Your task to perform on an android device: turn on priority inbox in the gmail app Image 0: 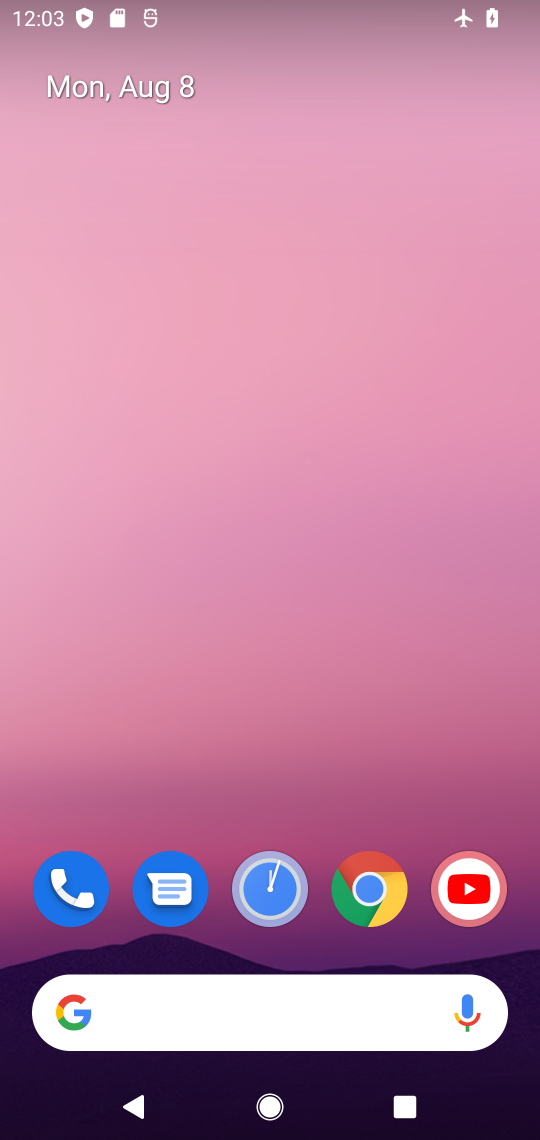
Step 0: drag from (278, 826) to (247, 327)
Your task to perform on an android device: turn on priority inbox in the gmail app Image 1: 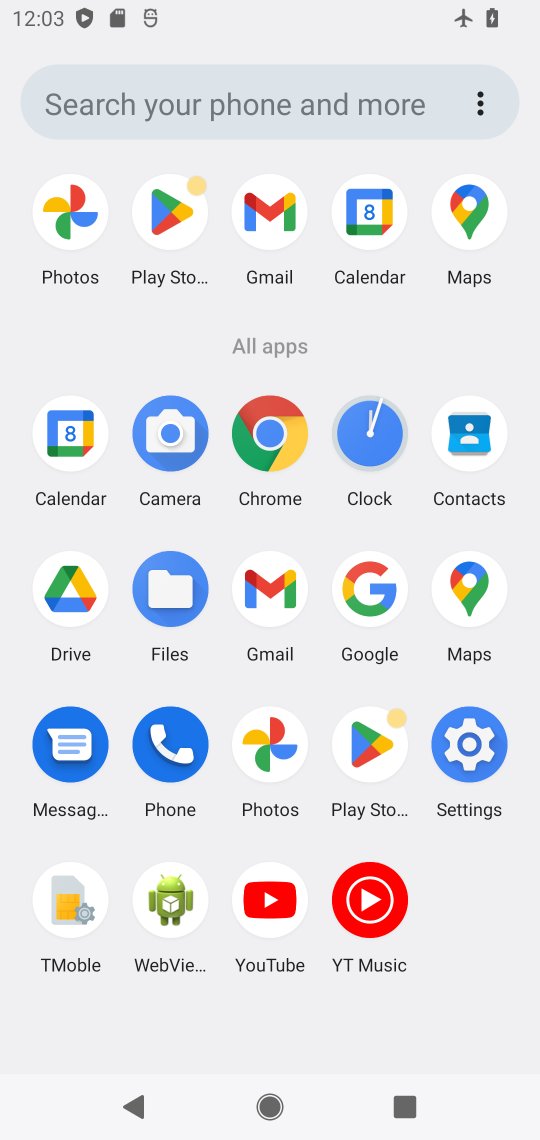
Step 1: click (288, 603)
Your task to perform on an android device: turn on priority inbox in the gmail app Image 2: 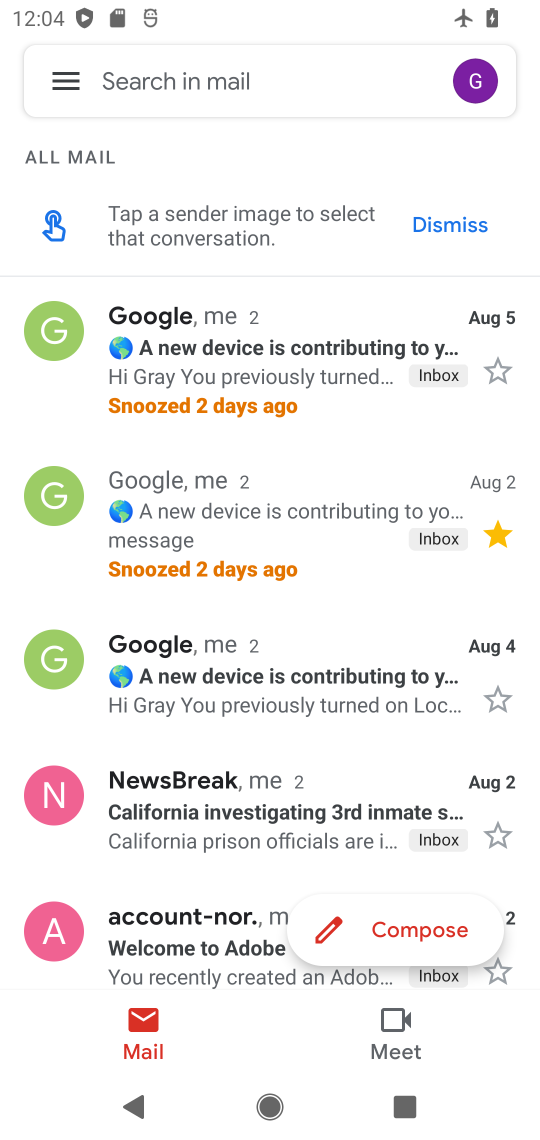
Step 2: click (86, 93)
Your task to perform on an android device: turn on priority inbox in the gmail app Image 3: 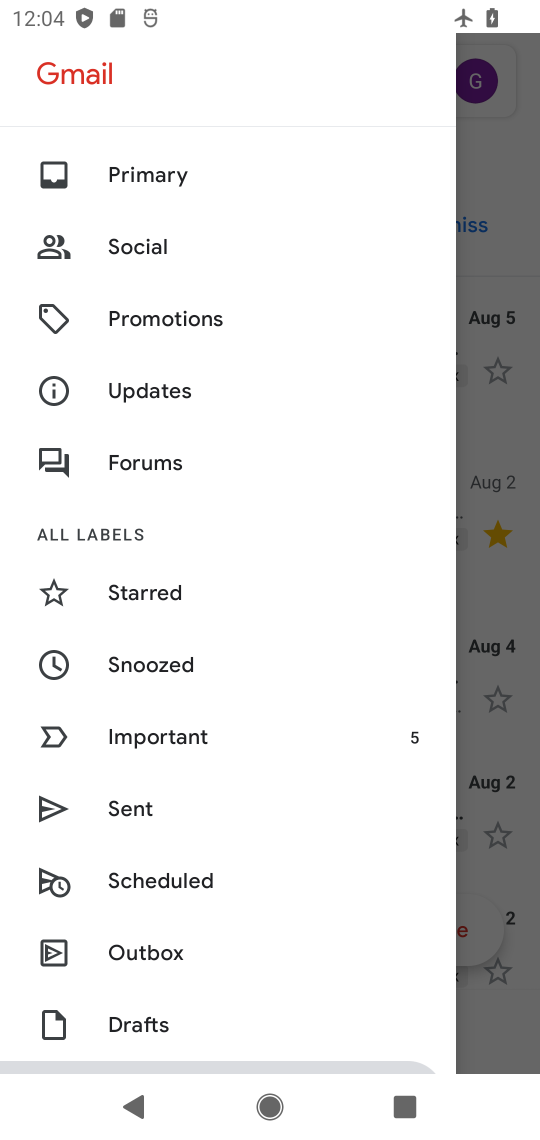
Step 3: drag from (245, 910) to (179, 423)
Your task to perform on an android device: turn on priority inbox in the gmail app Image 4: 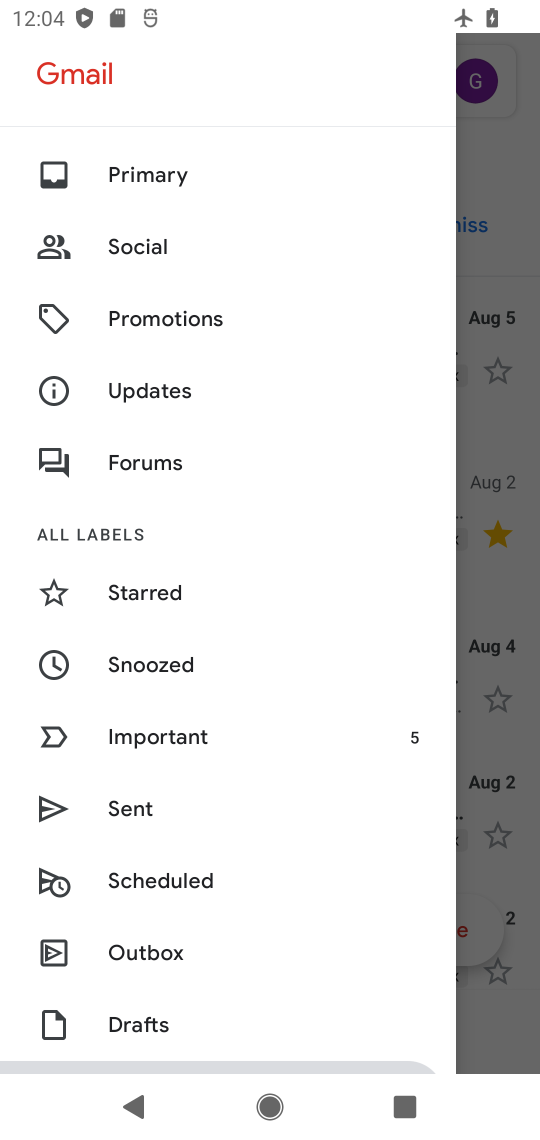
Step 4: drag from (253, 1003) to (237, 572)
Your task to perform on an android device: turn on priority inbox in the gmail app Image 5: 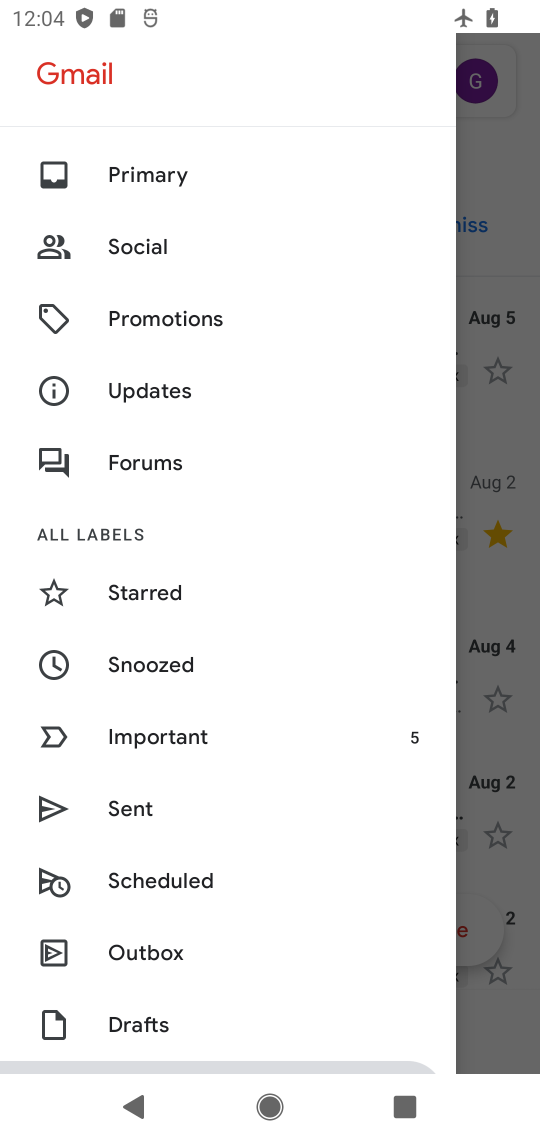
Step 5: drag from (276, 941) to (229, 287)
Your task to perform on an android device: turn on priority inbox in the gmail app Image 6: 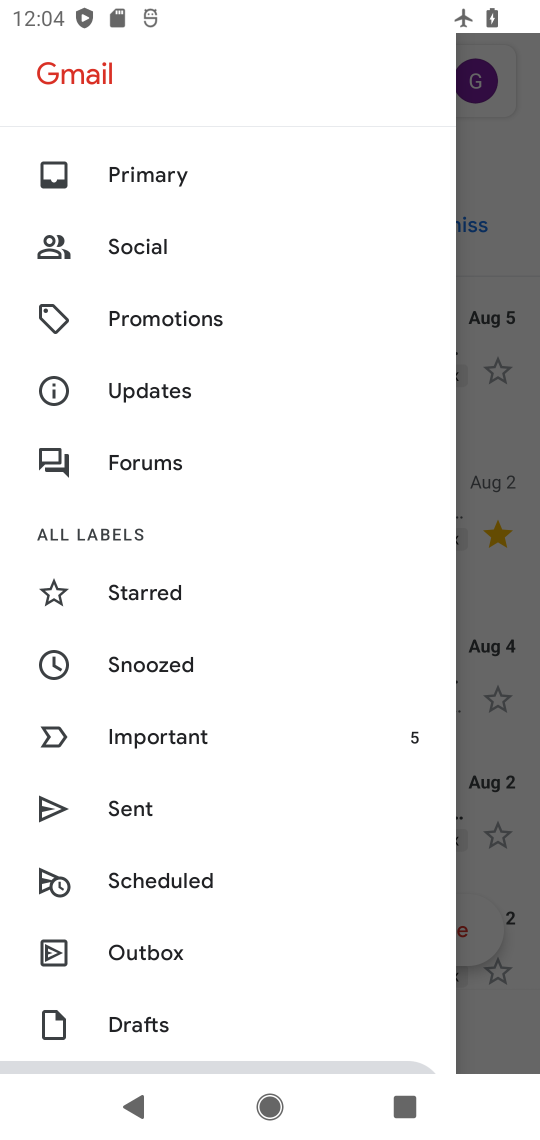
Step 6: drag from (238, 876) to (383, 339)
Your task to perform on an android device: turn on priority inbox in the gmail app Image 7: 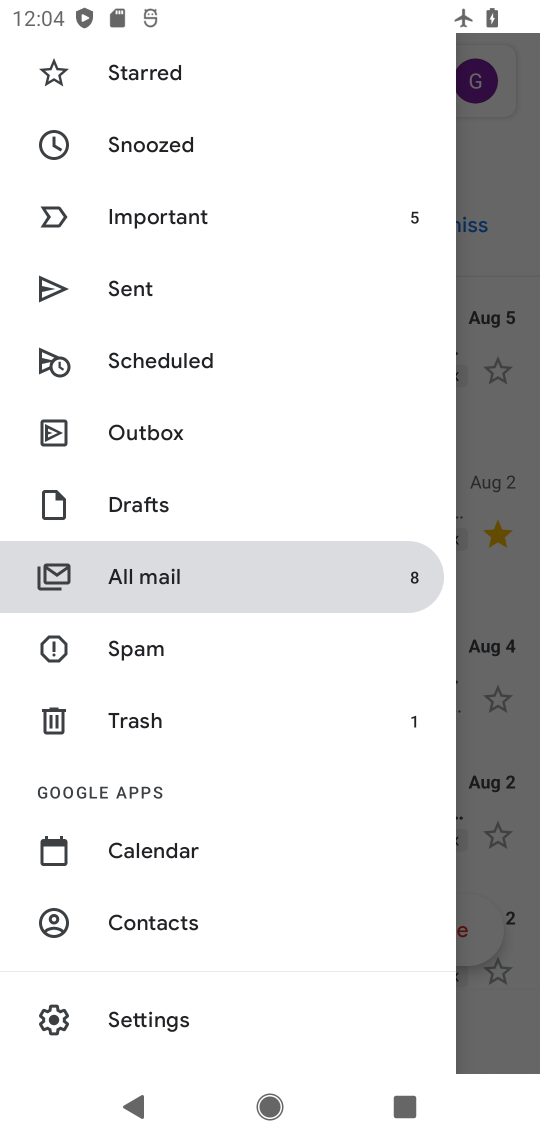
Step 7: click (170, 1011)
Your task to perform on an android device: turn on priority inbox in the gmail app Image 8: 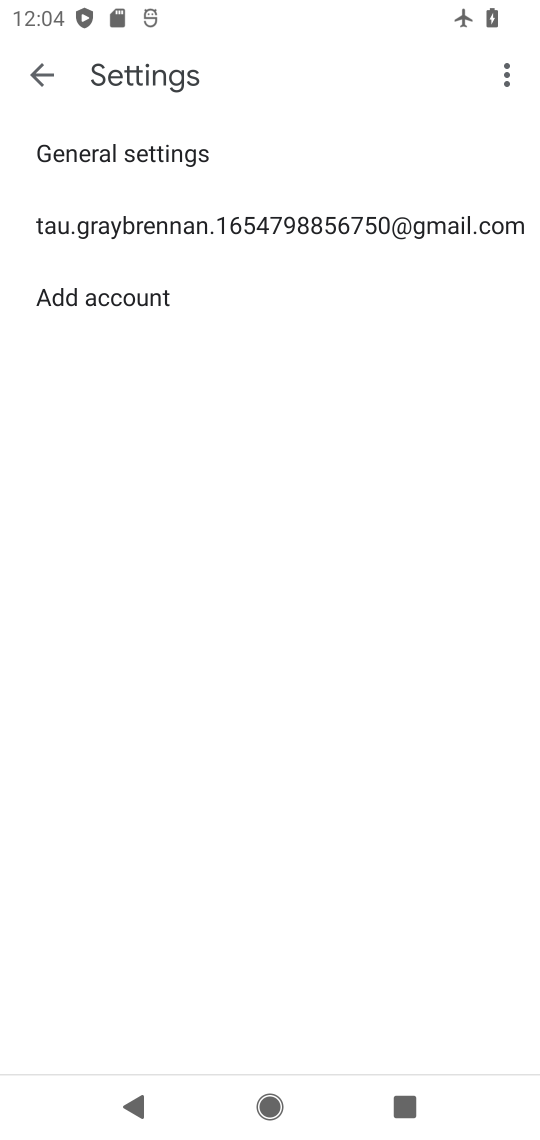
Step 8: click (367, 226)
Your task to perform on an android device: turn on priority inbox in the gmail app Image 9: 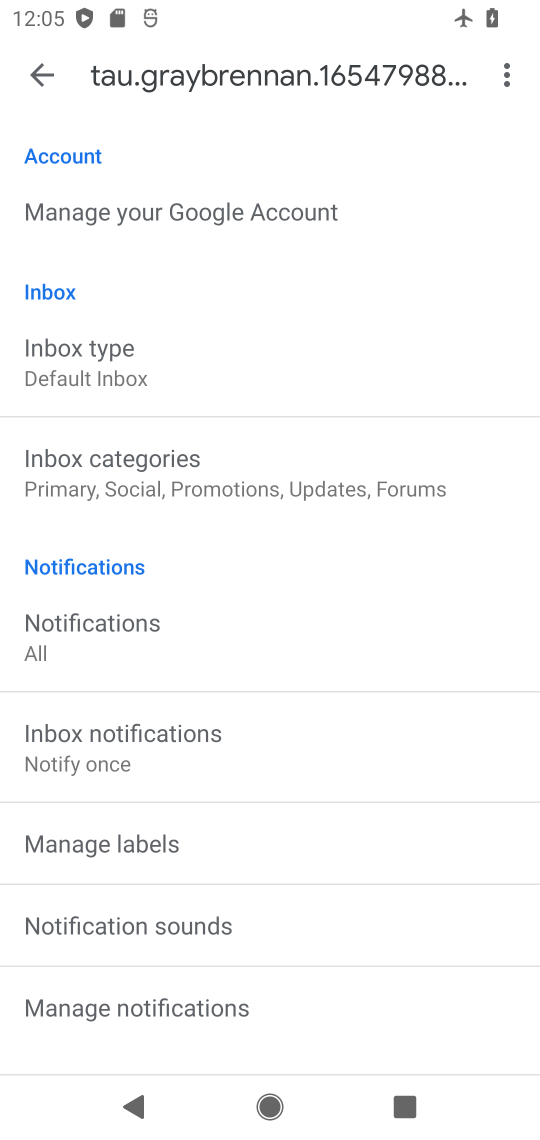
Step 9: click (148, 375)
Your task to perform on an android device: turn on priority inbox in the gmail app Image 10: 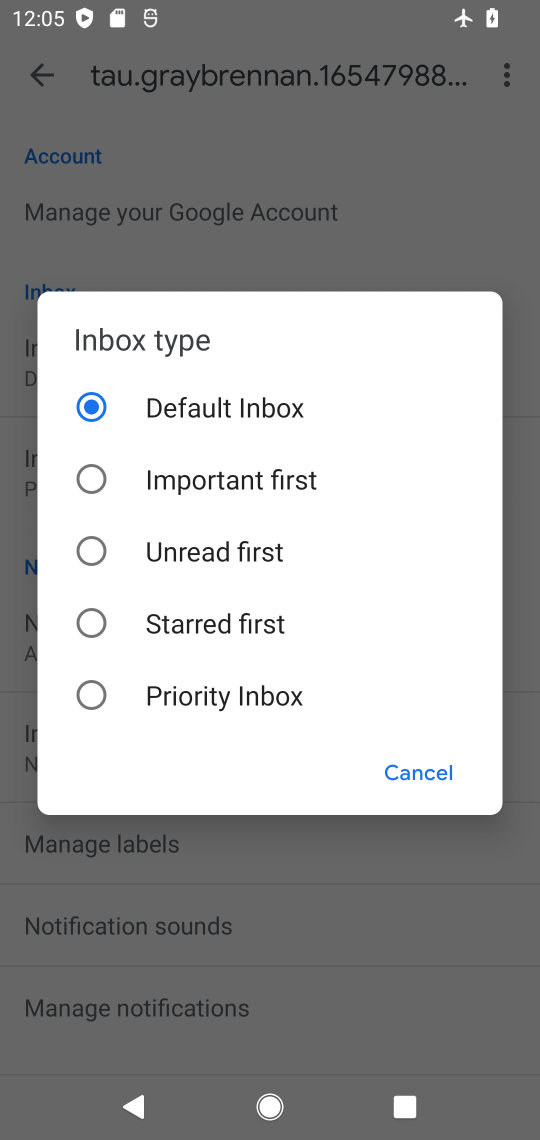
Step 10: click (103, 691)
Your task to perform on an android device: turn on priority inbox in the gmail app Image 11: 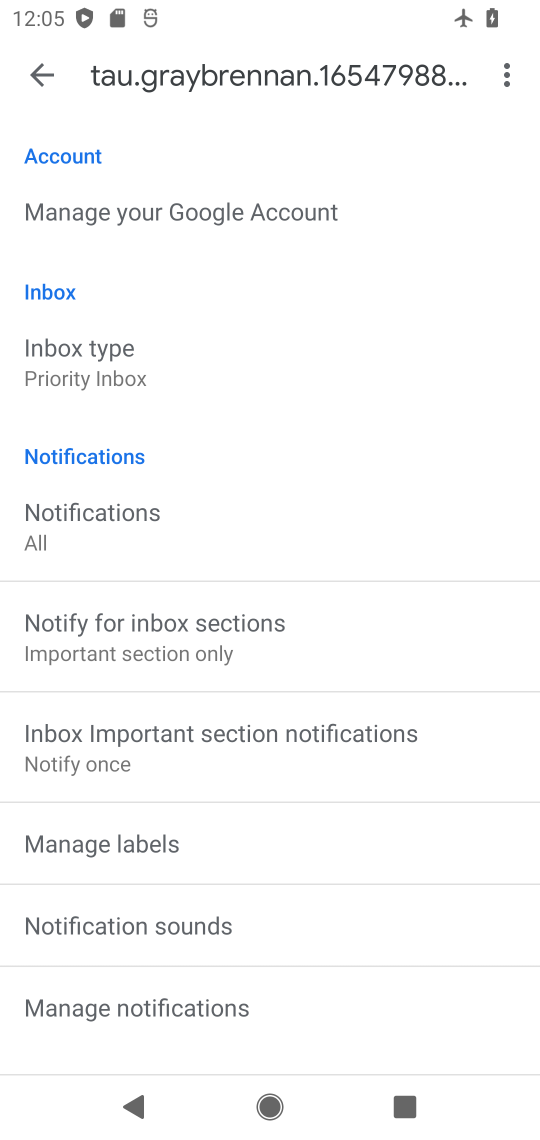
Step 11: task complete